Your task to perform on an android device: change alarm snooze length Image 0: 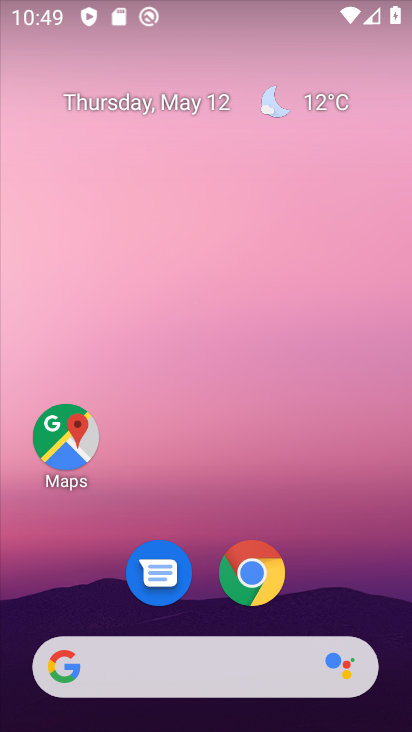
Step 0: drag from (331, 595) to (81, 713)
Your task to perform on an android device: change alarm snooze length Image 1: 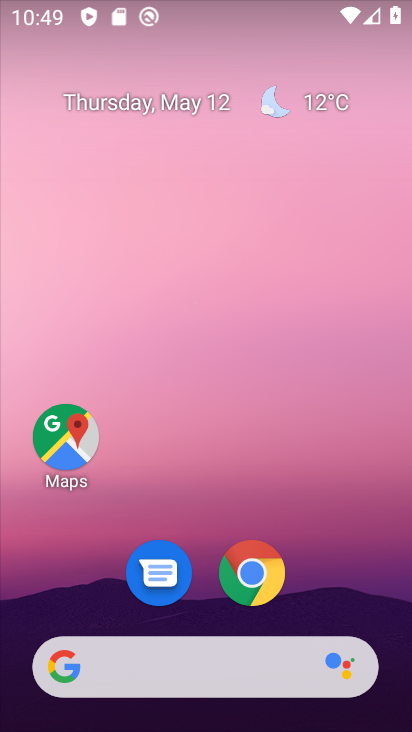
Step 1: drag from (345, 530) to (226, 48)
Your task to perform on an android device: change alarm snooze length Image 2: 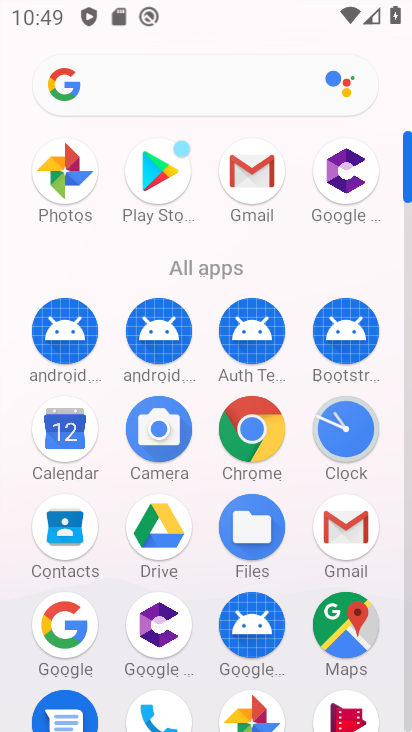
Step 2: click (340, 460)
Your task to perform on an android device: change alarm snooze length Image 3: 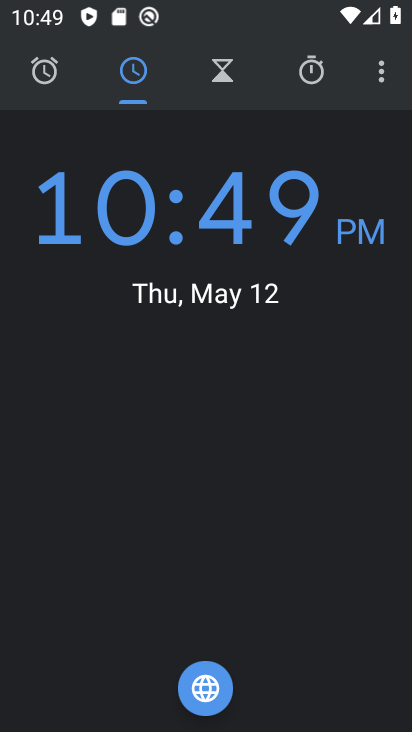
Step 3: click (377, 85)
Your task to perform on an android device: change alarm snooze length Image 4: 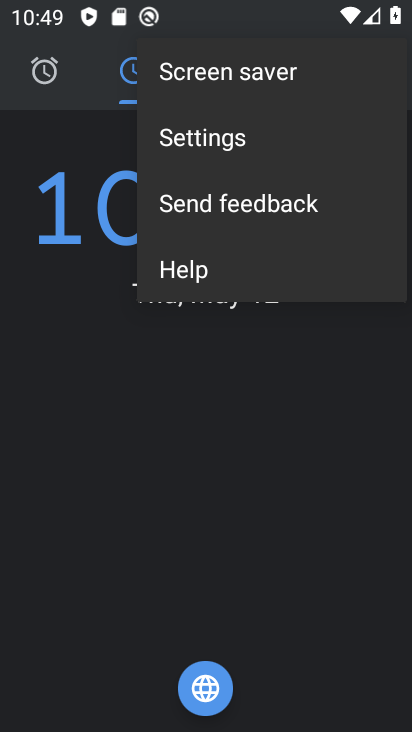
Step 4: click (206, 143)
Your task to perform on an android device: change alarm snooze length Image 5: 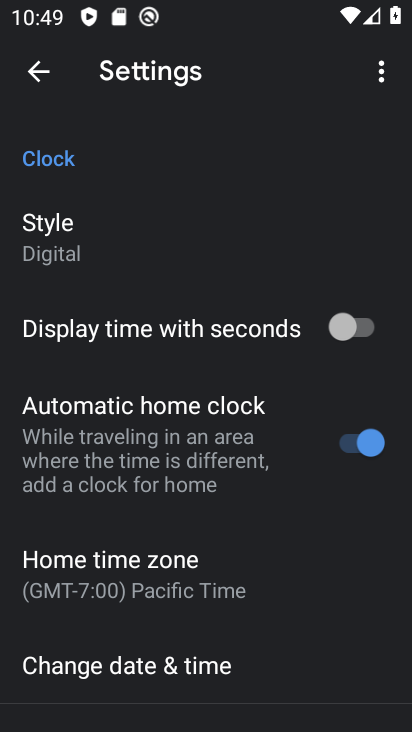
Step 5: drag from (300, 614) to (301, 383)
Your task to perform on an android device: change alarm snooze length Image 6: 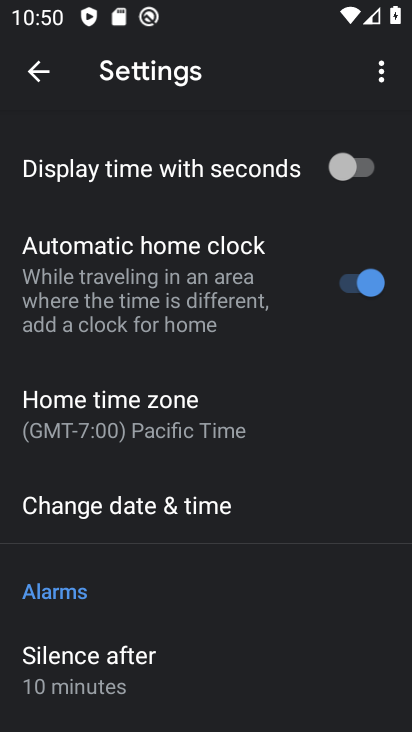
Step 6: drag from (221, 602) to (205, 312)
Your task to perform on an android device: change alarm snooze length Image 7: 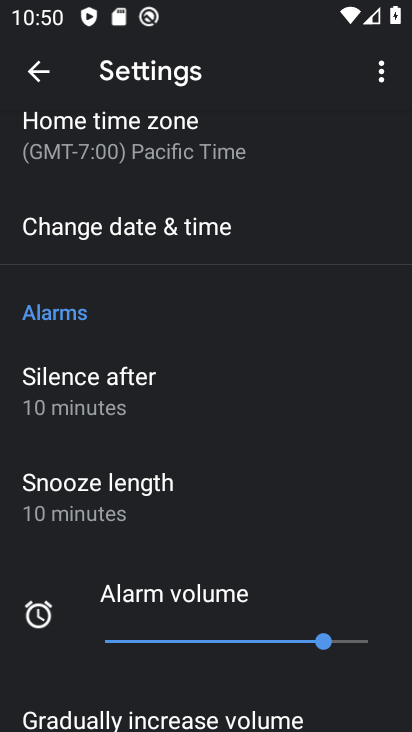
Step 7: drag from (178, 610) to (217, 452)
Your task to perform on an android device: change alarm snooze length Image 8: 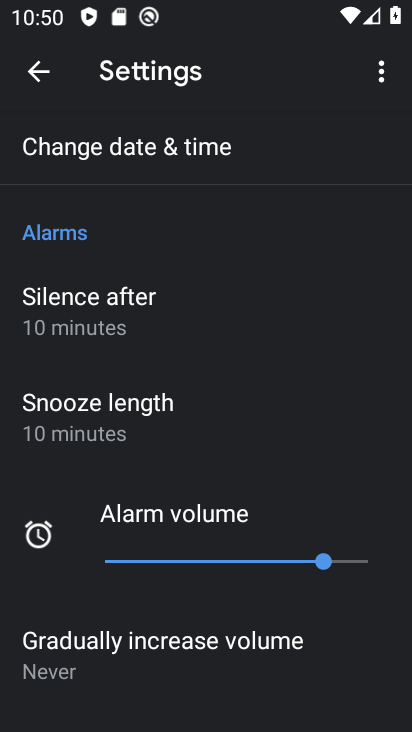
Step 8: click (164, 629)
Your task to perform on an android device: change alarm snooze length Image 9: 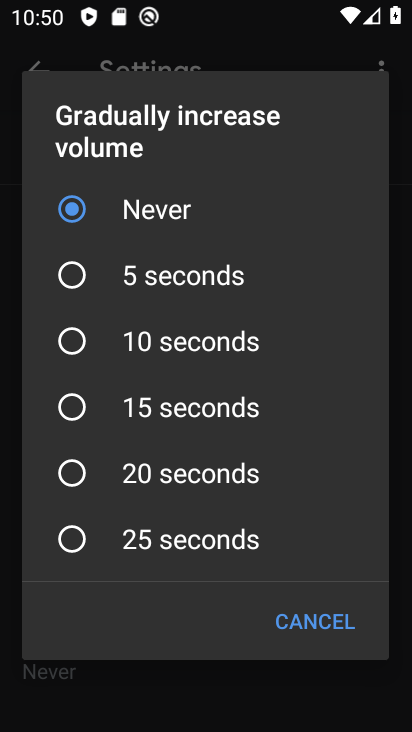
Step 9: click (319, 603)
Your task to perform on an android device: change alarm snooze length Image 10: 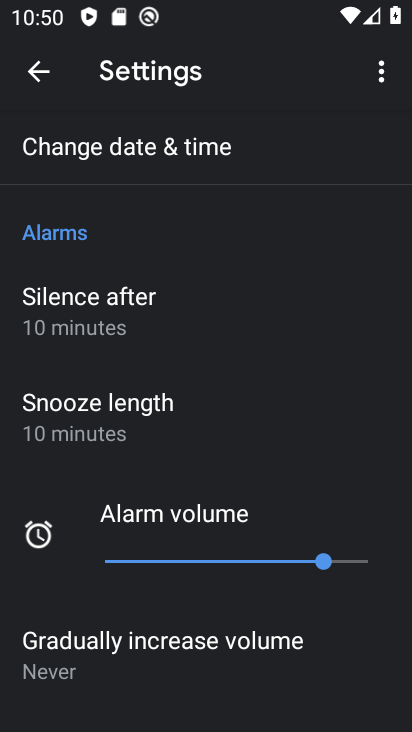
Step 10: click (197, 420)
Your task to perform on an android device: change alarm snooze length Image 11: 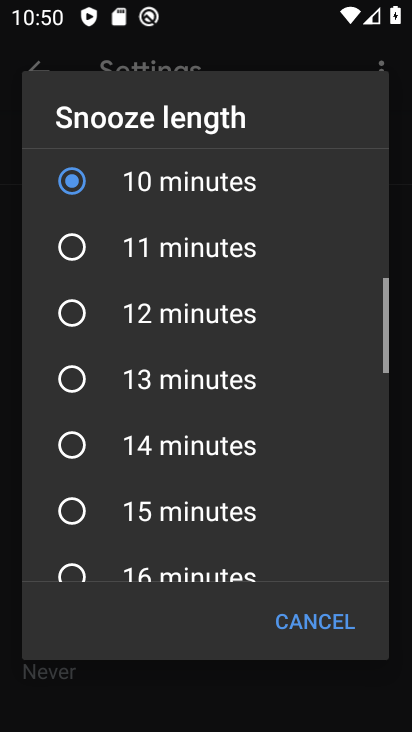
Step 11: click (189, 466)
Your task to perform on an android device: change alarm snooze length Image 12: 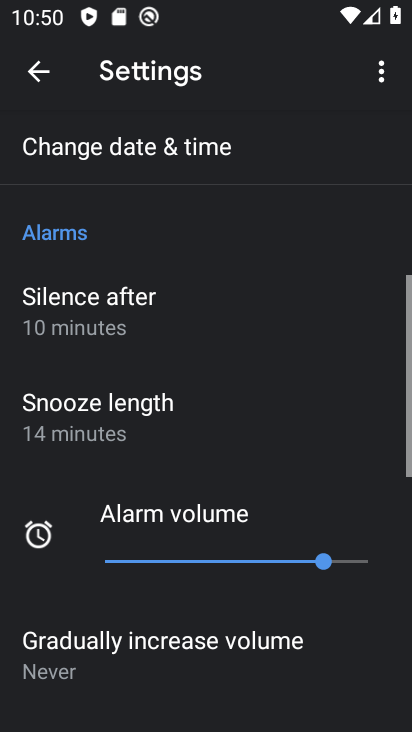
Step 12: task complete